Your task to perform on an android device: Is it going to rain today? Image 0: 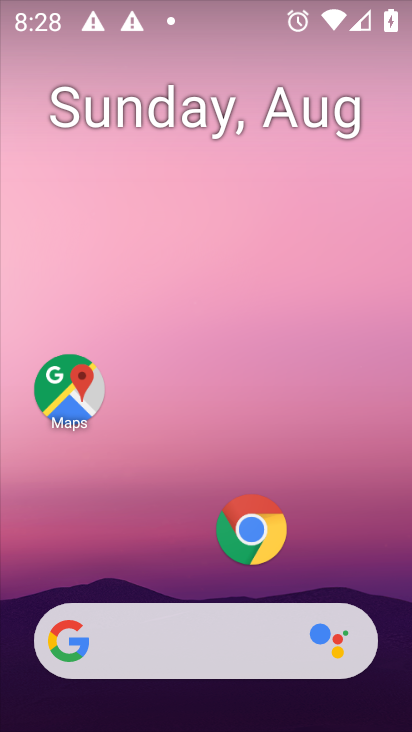
Step 0: click (152, 643)
Your task to perform on an android device: Is it going to rain today? Image 1: 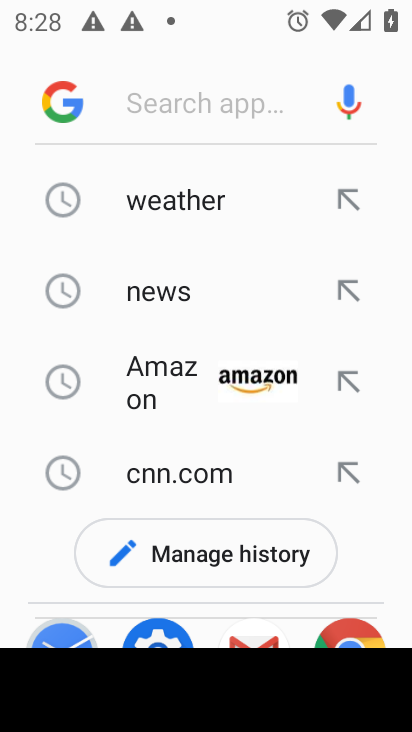
Step 1: click (156, 196)
Your task to perform on an android device: Is it going to rain today? Image 2: 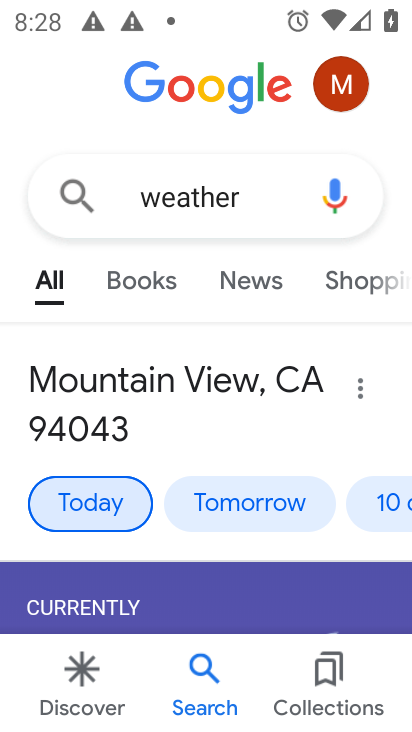
Step 2: click (219, 341)
Your task to perform on an android device: Is it going to rain today? Image 3: 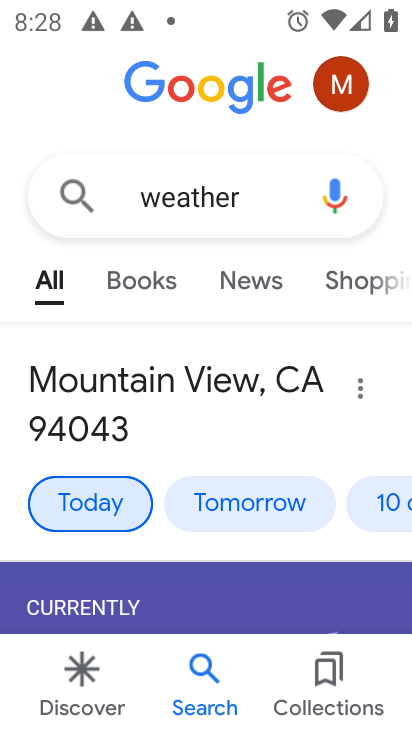
Step 3: task complete